Your task to perform on an android device: toggle show notifications on the lock screen Image 0: 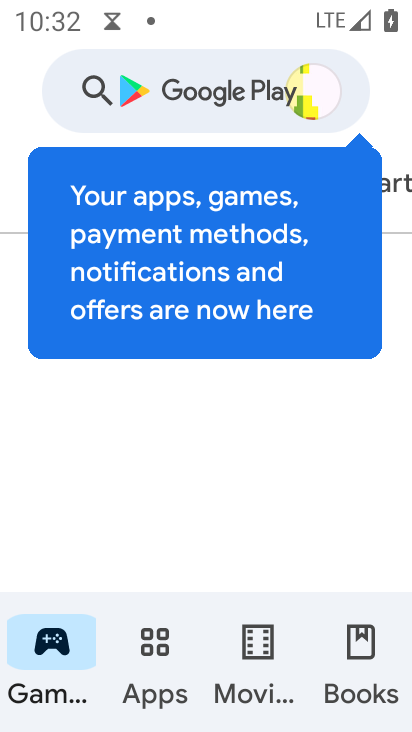
Step 0: press home button
Your task to perform on an android device: toggle show notifications on the lock screen Image 1: 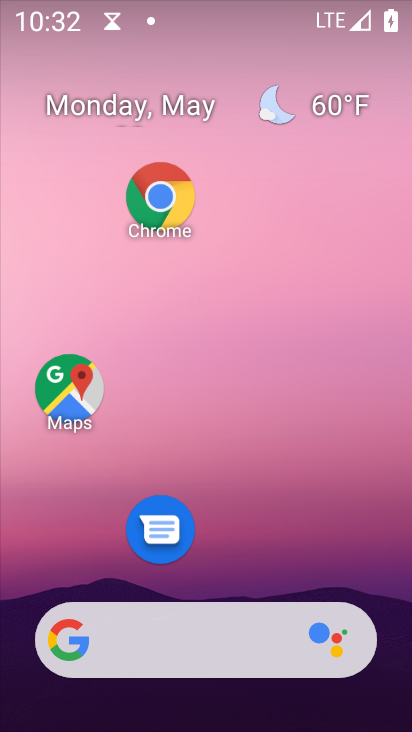
Step 1: drag from (252, 546) to (184, 78)
Your task to perform on an android device: toggle show notifications on the lock screen Image 2: 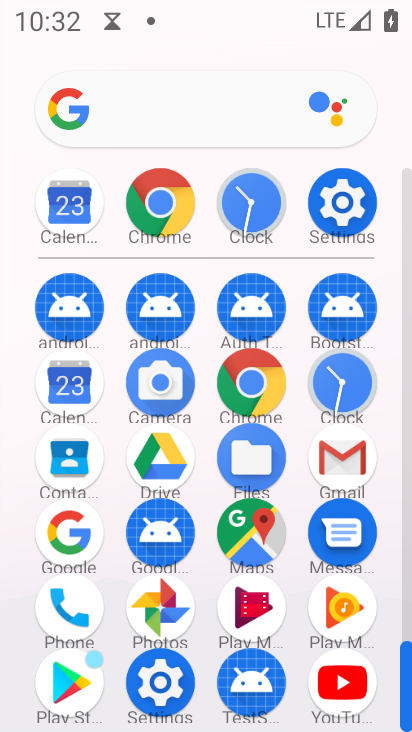
Step 2: click (338, 214)
Your task to perform on an android device: toggle show notifications on the lock screen Image 3: 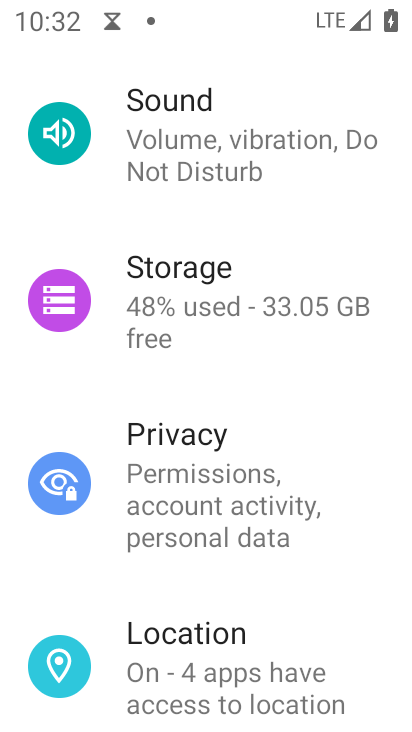
Step 3: click (208, 130)
Your task to perform on an android device: toggle show notifications on the lock screen Image 4: 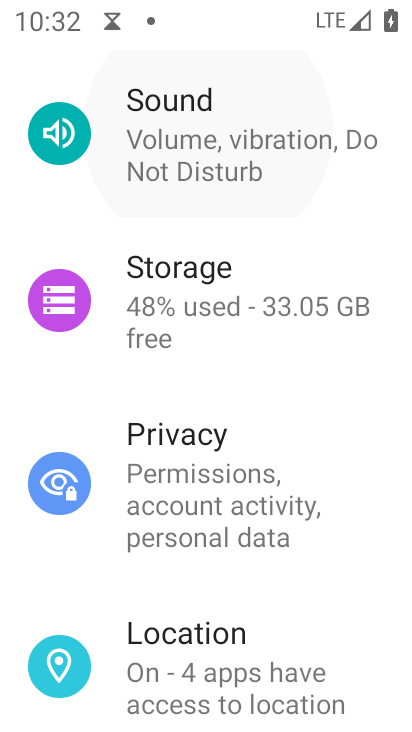
Step 4: drag from (208, 130) to (209, 598)
Your task to perform on an android device: toggle show notifications on the lock screen Image 5: 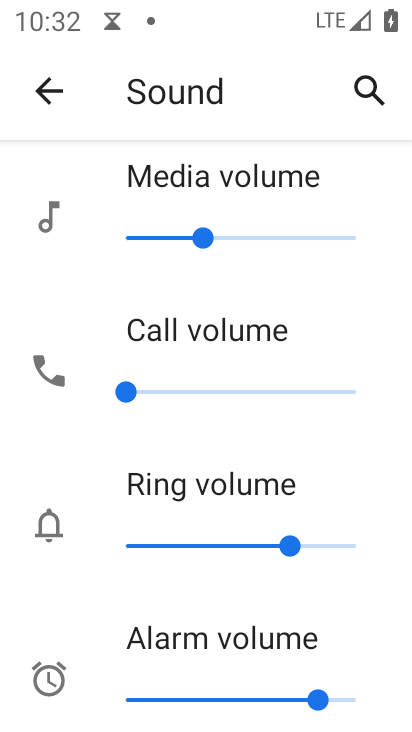
Step 5: click (40, 99)
Your task to perform on an android device: toggle show notifications on the lock screen Image 6: 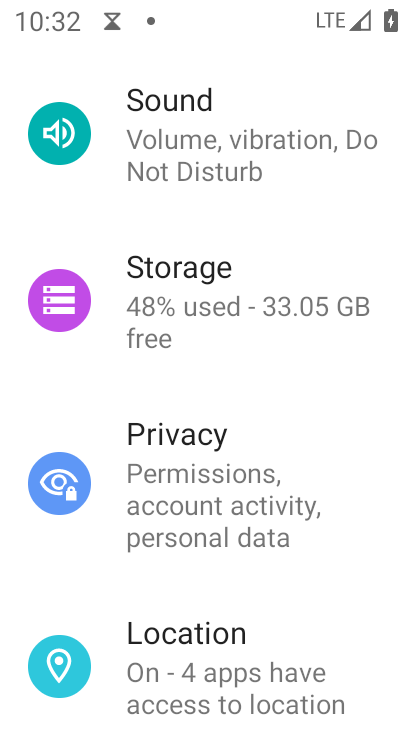
Step 6: drag from (166, 185) to (218, 540)
Your task to perform on an android device: toggle show notifications on the lock screen Image 7: 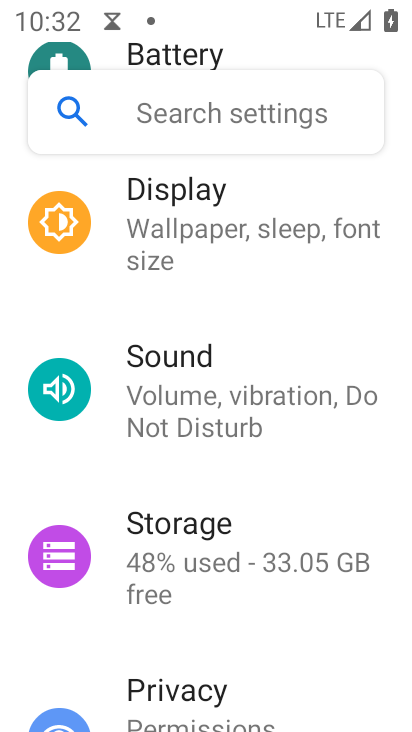
Step 7: drag from (170, 648) to (200, 242)
Your task to perform on an android device: toggle show notifications on the lock screen Image 8: 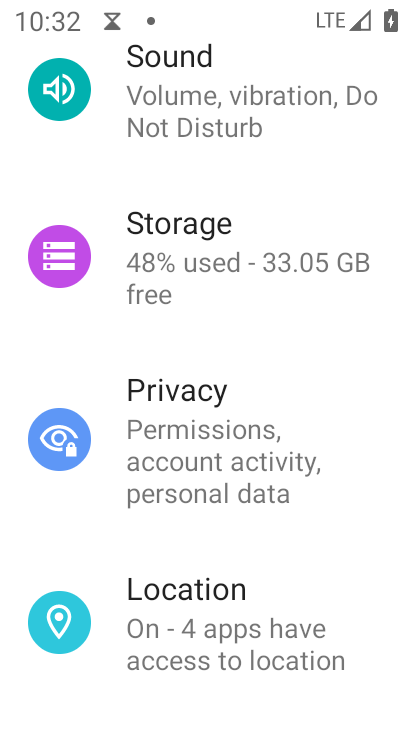
Step 8: drag from (224, 658) to (239, 179)
Your task to perform on an android device: toggle show notifications on the lock screen Image 9: 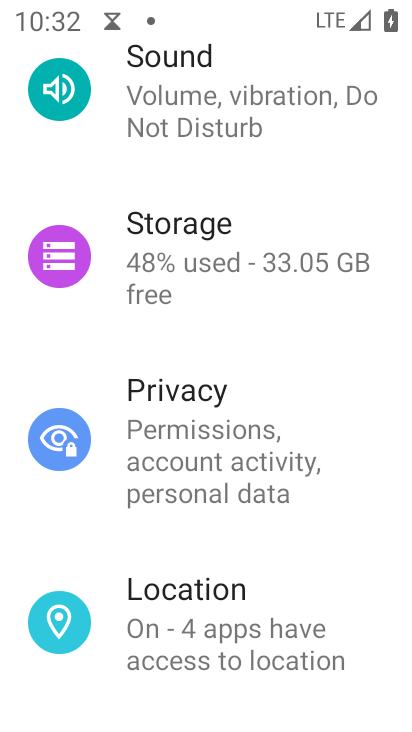
Step 9: drag from (238, 165) to (248, 535)
Your task to perform on an android device: toggle show notifications on the lock screen Image 10: 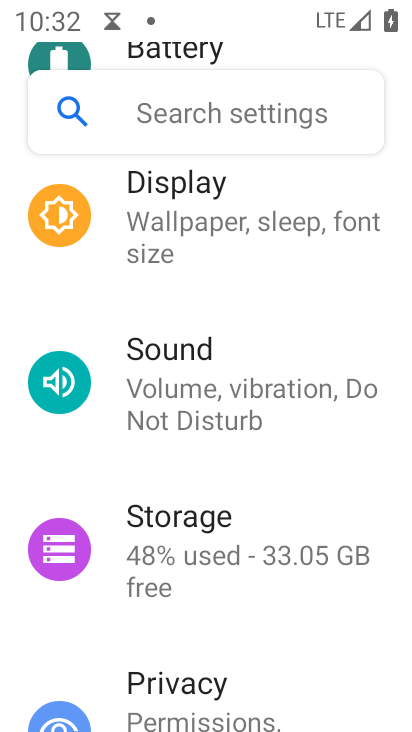
Step 10: drag from (197, 274) to (190, 659)
Your task to perform on an android device: toggle show notifications on the lock screen Image 11: 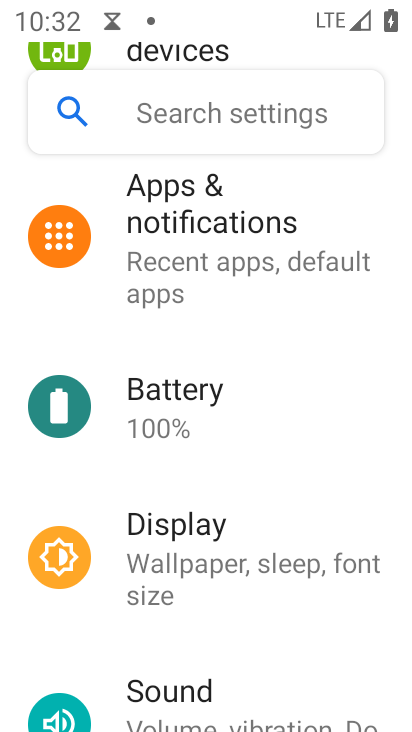
Step 11: click (196, 245)
Your task to perform on an android device: toggle show notifications on the lock screen Image 12: 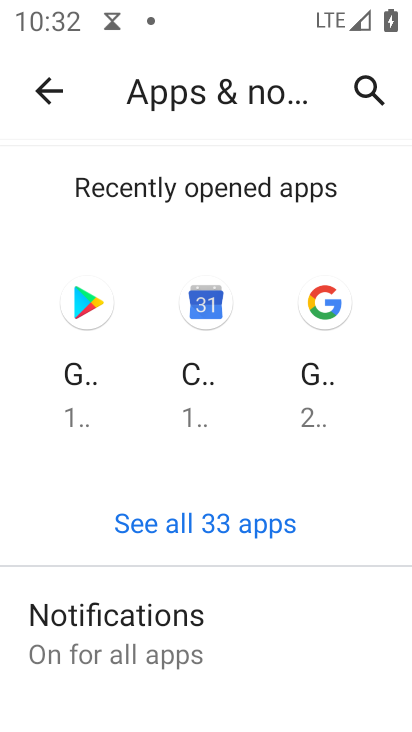
Step 12: drag from (221, 660) to (216, 349)
Your task to perform on an android device: toggle show notifications on the lock screen Image 13: 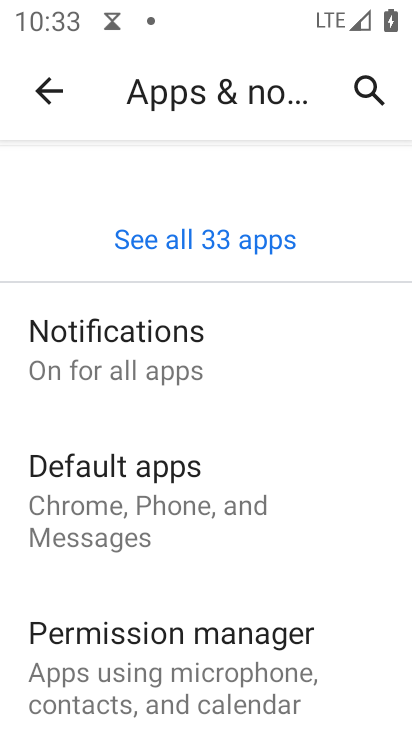
Step 13: click (88, 350)
Your task to perform on an android device: toggle show notifications on the lock screen Image 14: 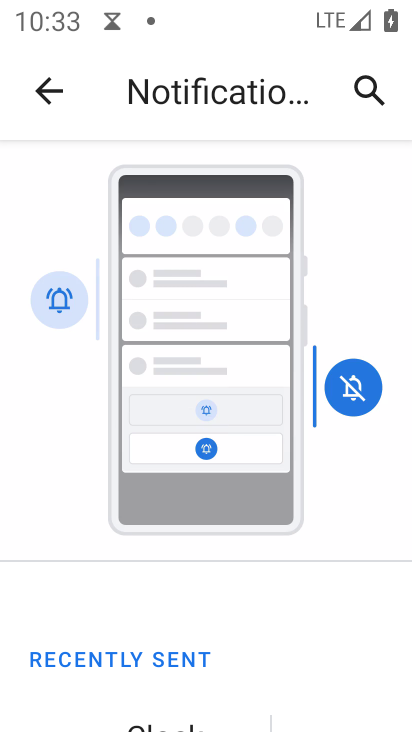
Step 14: click (148, 179)
Your task to perform on an android device: toggle show notifications on the lock screen Image 15: 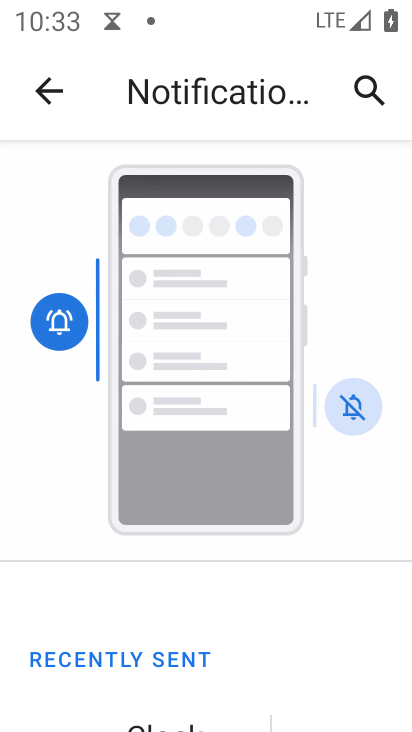
Step 15: drag from (192, 599) to (180, 200)
Your task to perform on an android device: toggle show notifications on the lock screen Image 16: 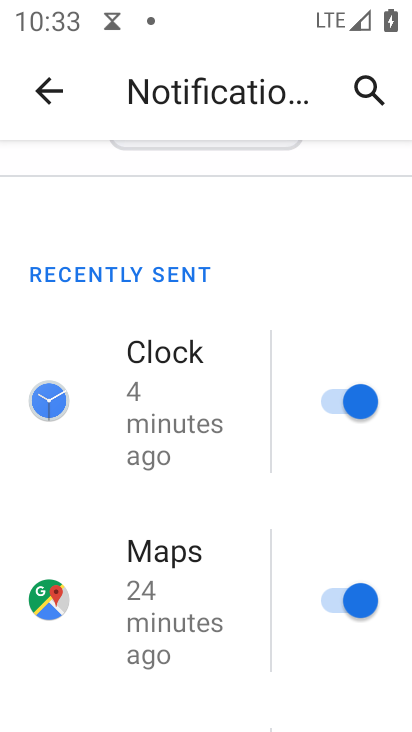
Step 16: drag from (115, 216) to (111, 166)
Your task to perform on an android device: toggle show notifications on the lock screen Image 17: 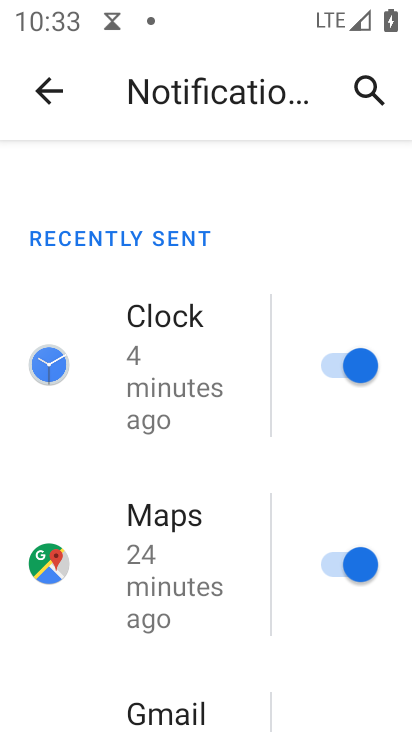
Step 17: drag from (172, 625) to (134, 148)
Your task to perform on an android device: toggle show notifications on the lock screen Image 18: 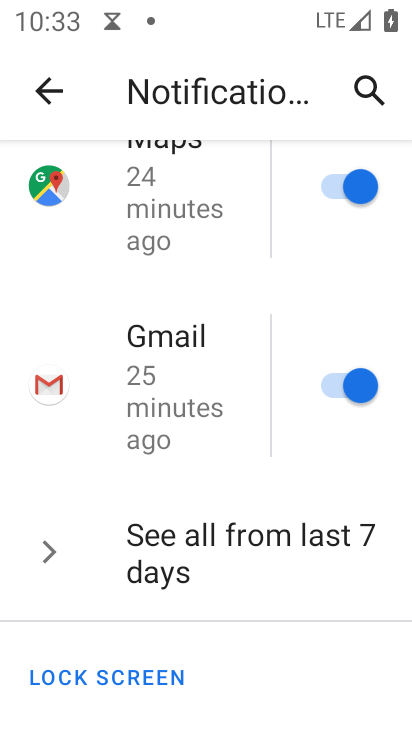
Step 18: click (124, 112)
Your task to perform on an android device: toggle show notifications on the lock screen Image 19: 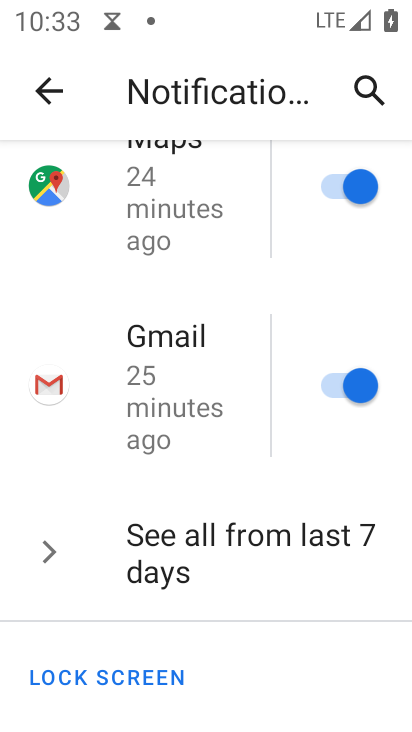
Step 19: drag from (226, 623) to (157, 64)
Your task to perform on an android device: toggle show notifications on the lock screen Image 20: 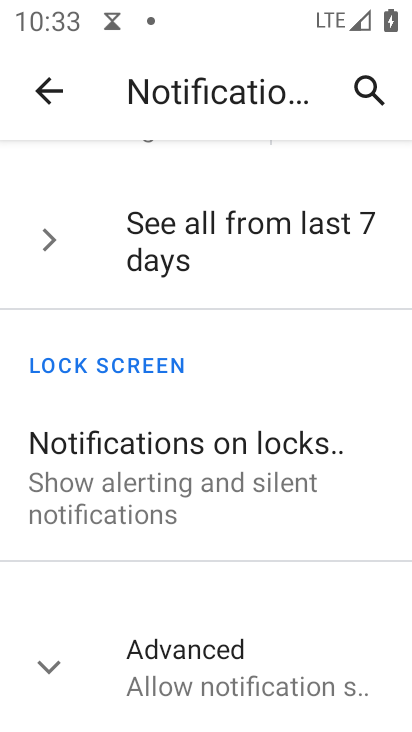
Step 20: click (230, 494)
Your task to perform on an android device: toggle show notifications on the lock screen Image 21: 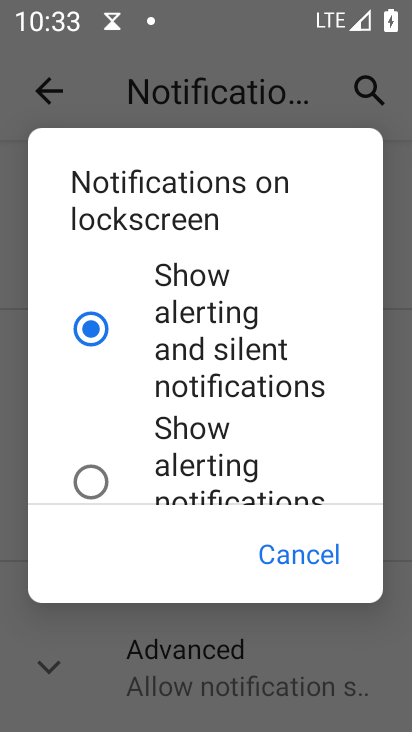
Step 21: click (100, 491)
Your task to perform on an android device: toggle show notifications on the lock screen Image 22: 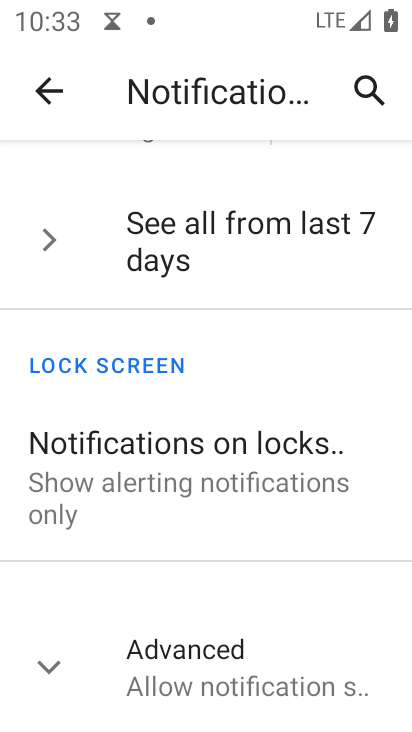
Step 22: task complete